Your task to perform on an android device: change your default location settings in chrome Image 0: 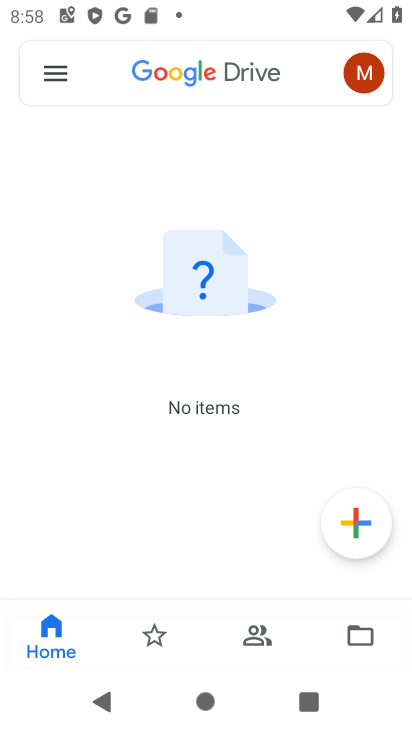
Step 0: press home button
Your task to perform on an android device: change your default location settings in chrome Image 1: 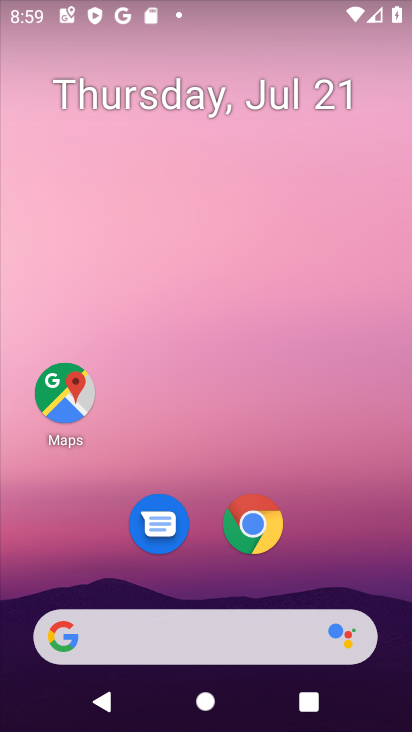
Step 1: click (259, 512)
Your task to perform on an android device: change your default location settings in chrome Image 2: 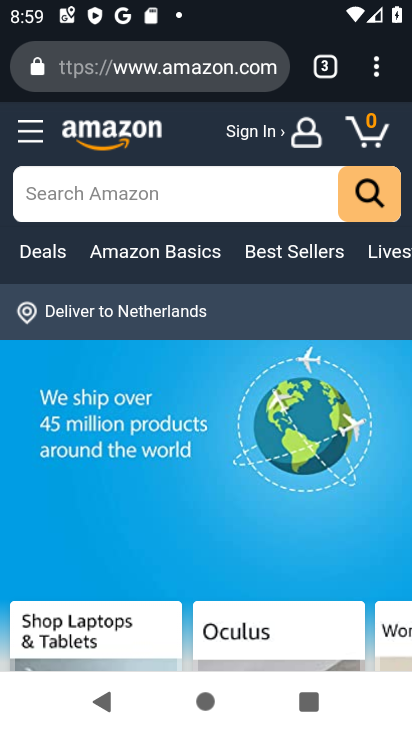
Step 2: drag from (370, 70) to (242, 517)
Your task to perform on an android device: change your default location settings in chrome Image 3: 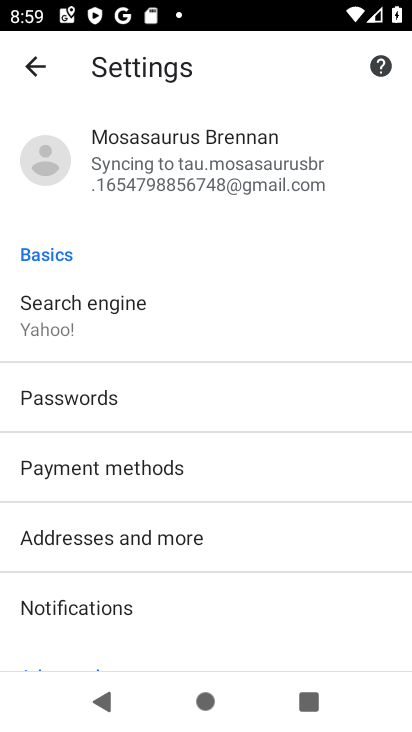
Step 3: drag from (215, 566) to (267, 209)
Your task to perform on an android device: change your default location settings in chrome Image 4: 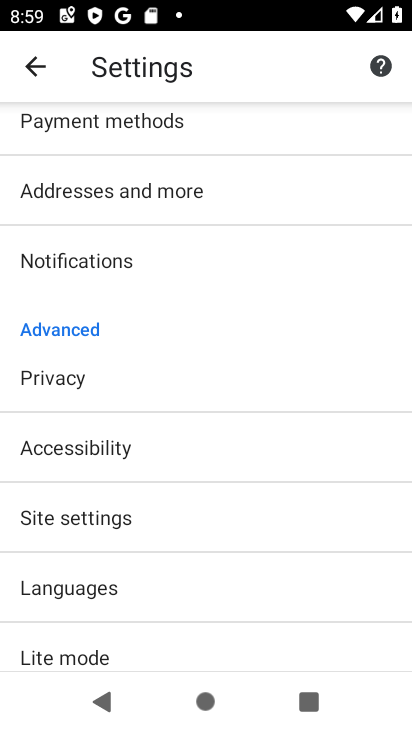
Step 4: click (100, 512)
Your task to perform on an android device: change your default location settings in chrome Image 5: 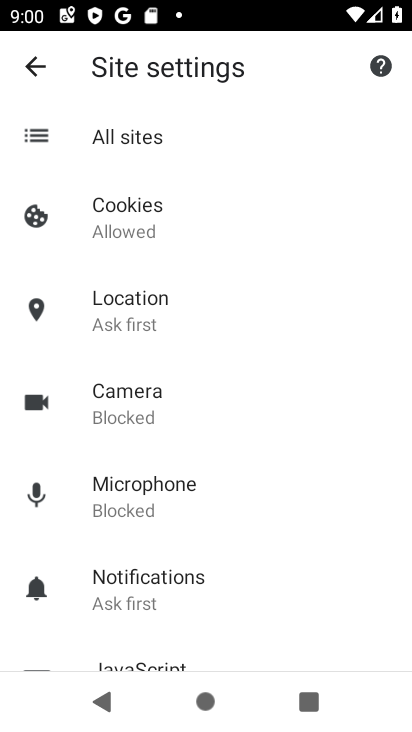
Step 5: click (136, 309)
Your task to perform on an android device: change your default location settings in chrome Image 6: 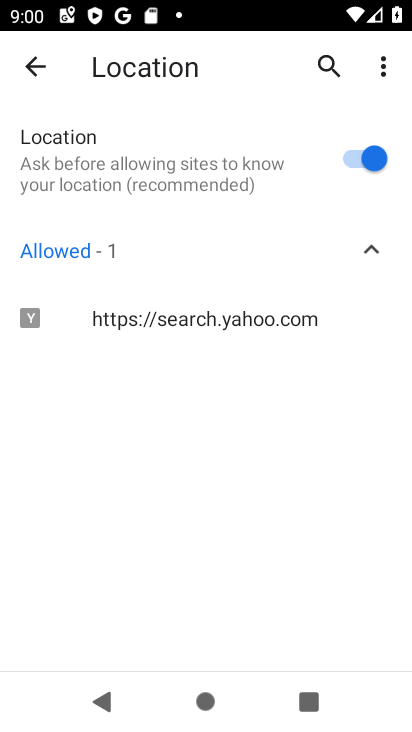
Step 6: click (353, 160)
Your task to perform on an android device: change your default location settings in chrome Image 7: 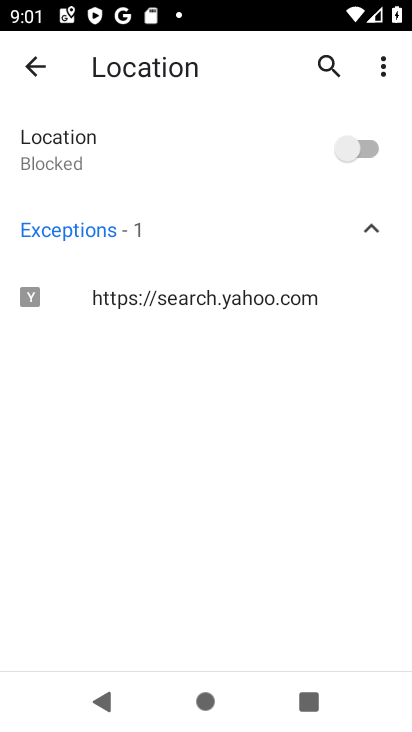
Step 7: task complete